Your task to perform on an android device: Is it going to rain today? Image 0: 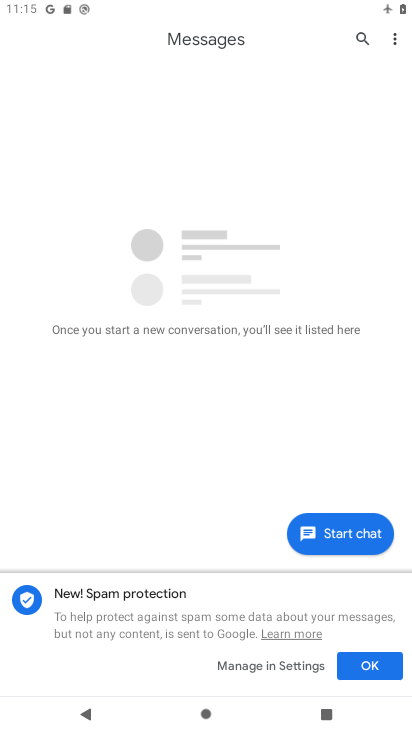
Step 0: press home button
Your task to perform on an android device: Is it going to rain today? Image 1: 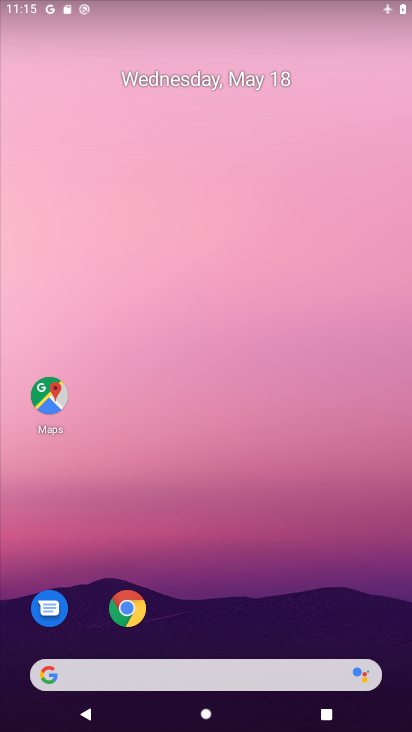
Step 1: click (129, 615)
Your task to perform on an android device: Is it going to rain today? Image 2: 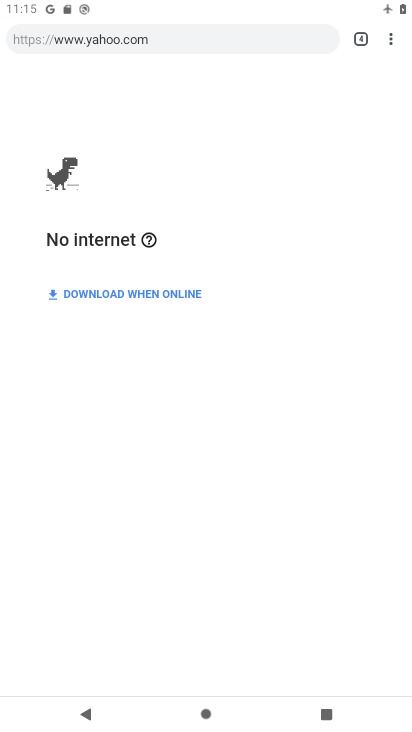
Step 2: click (363, 37)
Your task to perform on an android device: Is it going to rain today? Image 3: 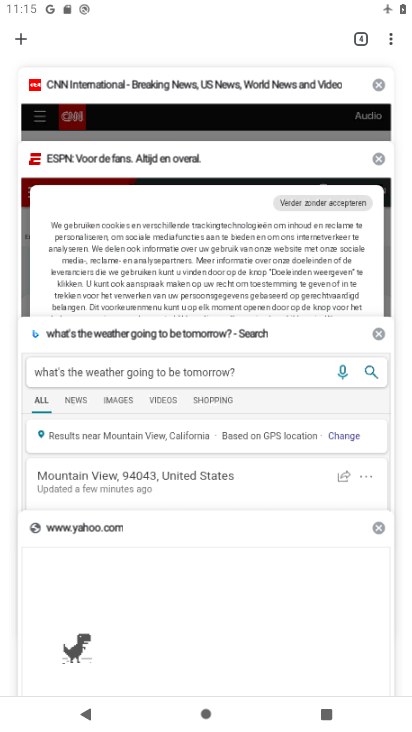
Step 3: click (20, 37)
Your task to perform on an android device: Is it going to rain today? Image 4: 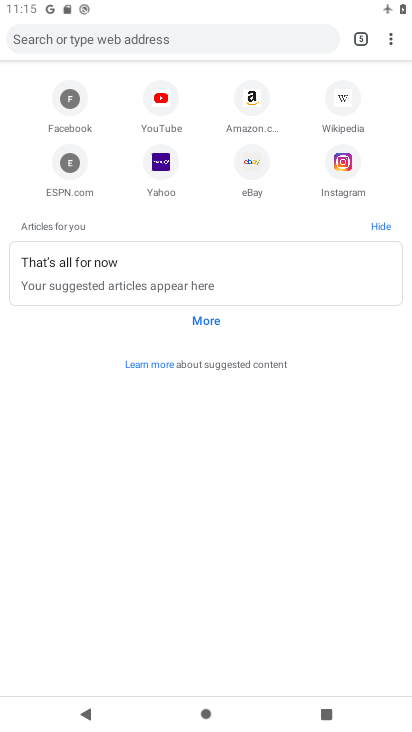
Step 4: click (142, 44)
Your task to perform on an android device: Is it going to rain today? Image 5: 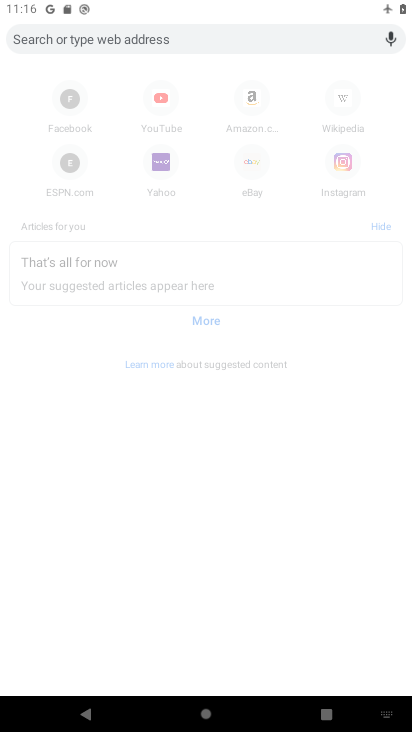
Step 5: type "is it going to rain today?"
Your task to perform on an android device: Is it going to rain today? Image 6: 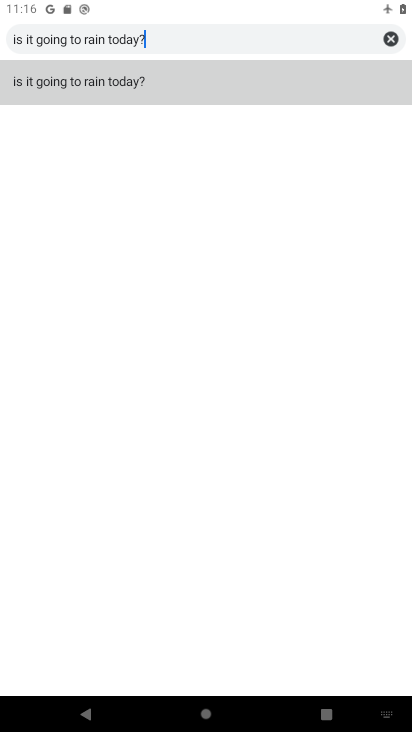
Step 6: click (57, 91)
Your task to perform on an android device: Is it going to rain today? Image 7: 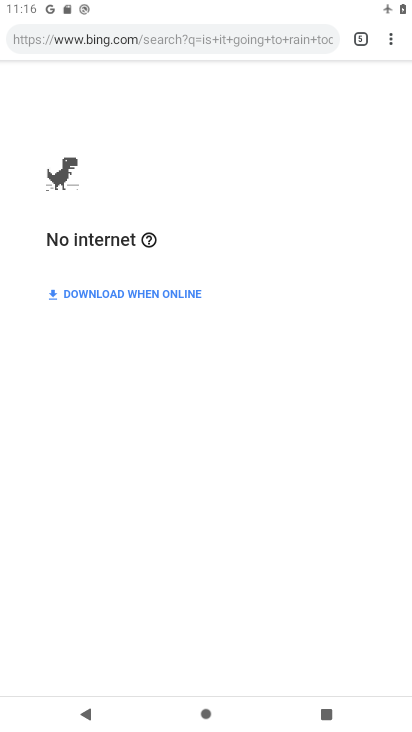
Step 7: task complete